Your task to perform on an android device: Open settings Image 0: 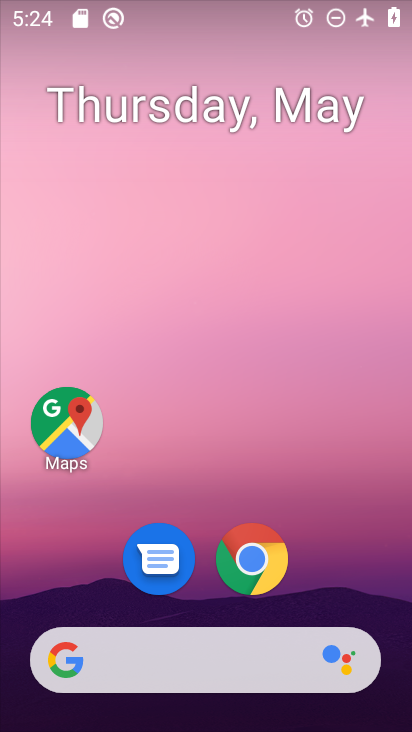
Step 0: drag from (342, 543) to (250, 49)
Your task to perform on an android device: Open settings Image 1: 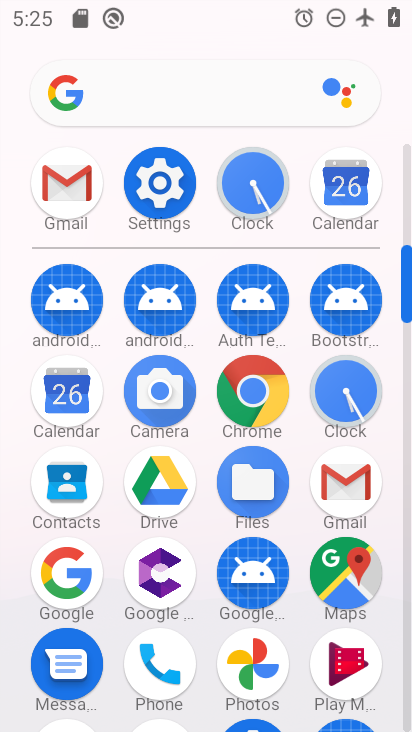
Step 1: click (160, 177)
Your task to perform on an android device: Open settings Image 2: 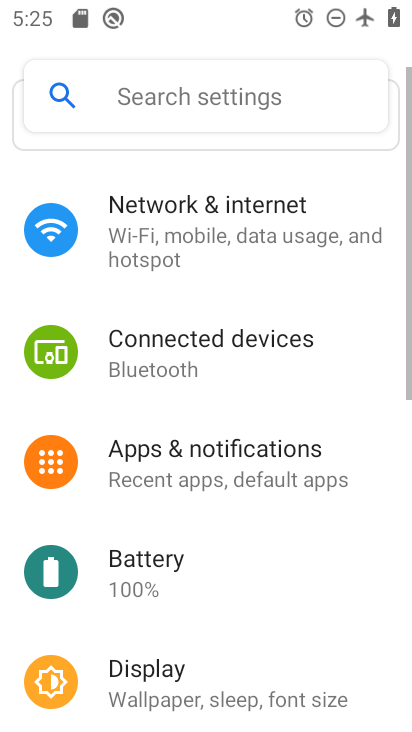
Step 2: task complete